Your task to perform on an android device: Open notification settings Image 0: 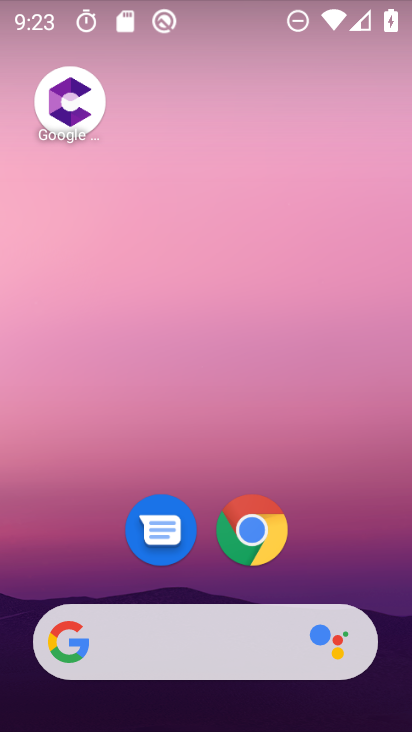
Step 0: drag from (369, 573) to (375, 21)
Your task to perform on an android device: Open notification settings Image 1: 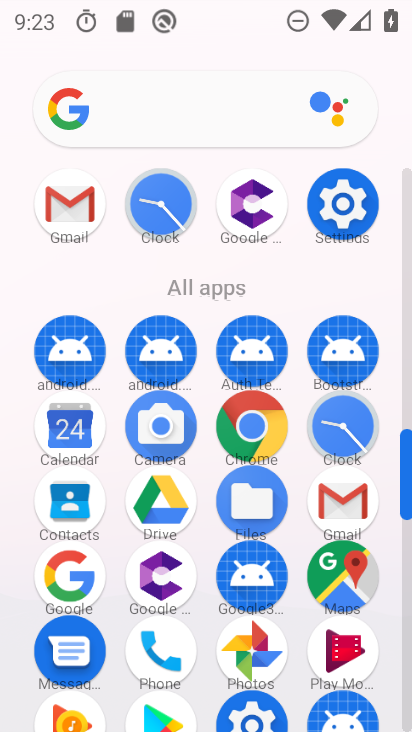
Step 1: click (344, 215)
Your task to perform on an android device: Open notification settings Image 2: 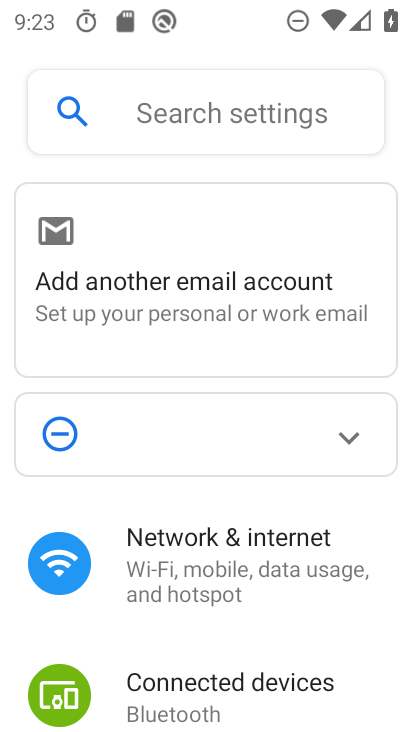
Step 2: drag from (352, 664) to (339, 179)
Your task to perform on an android device: Open notification settings Image 3: 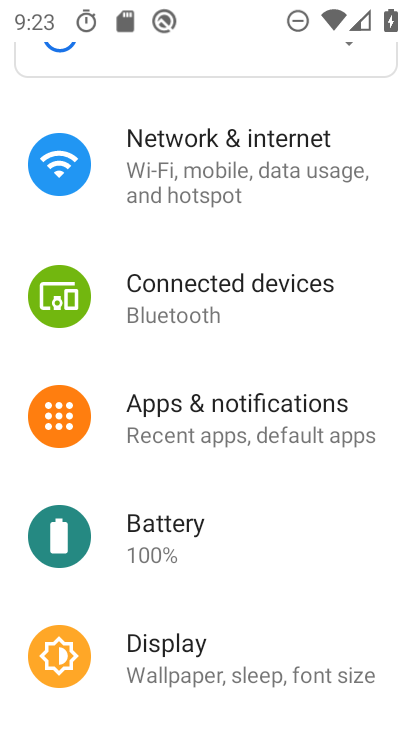
Step 3: click (190, 430)
Your task to perform on an android device: Open notification settings Image 4: 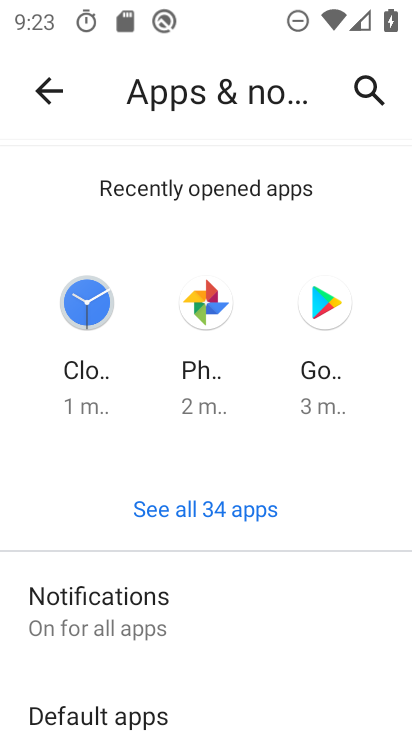
Step 4: task complete